Your task to perform on an android device: star an email in the gmail app Image 0: 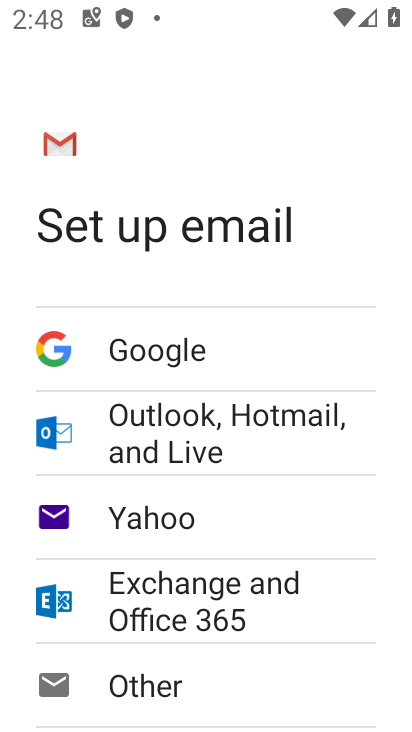
Step 0: press home button
Your task to perform on an android device: star an email in the gmail app Image 1: 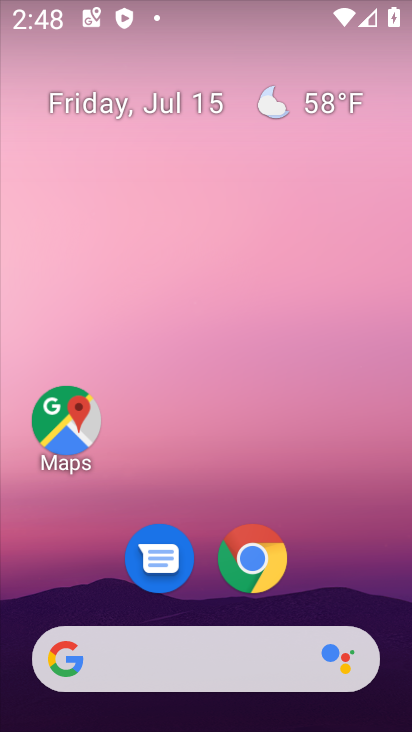
Step 1: drag from (346, 563) to (349, 92)
Your task to perform on an android device: star an email in the gmail app Image 2: 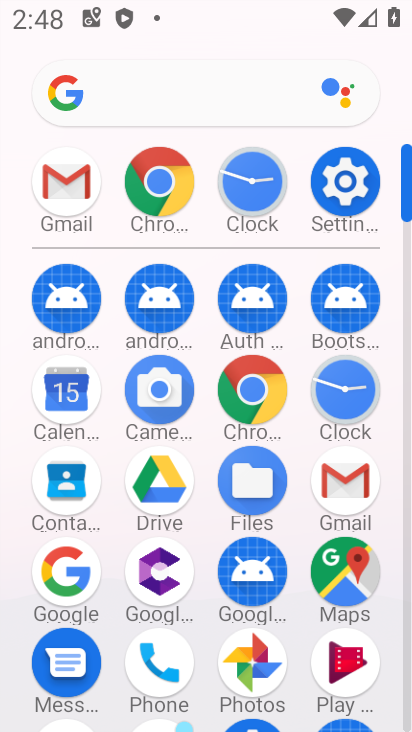
Step 2: click (351, 488)
Your task to perform on an android device: star an email in the gmail app Image 3: 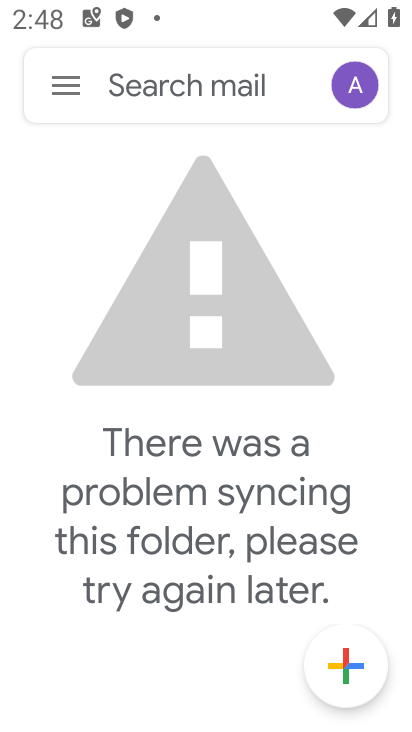
Step 3: click (57, 90)
Your task to perform on an android device: star an email in the gmail app Image 4: 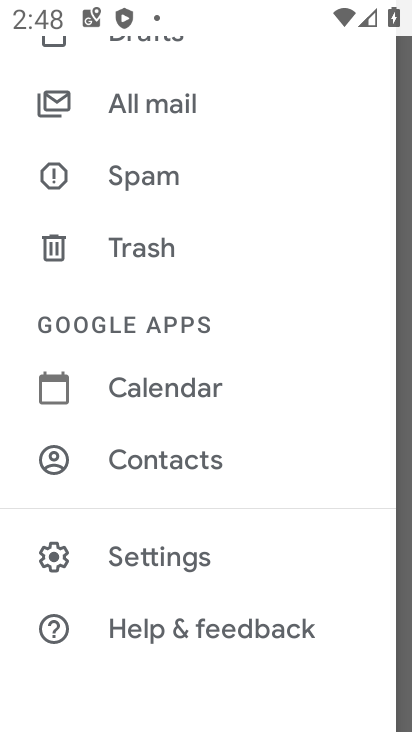
Step 4: click (226, 121)
Your task to perform on an android device: star an email in the gmail app Image 5: 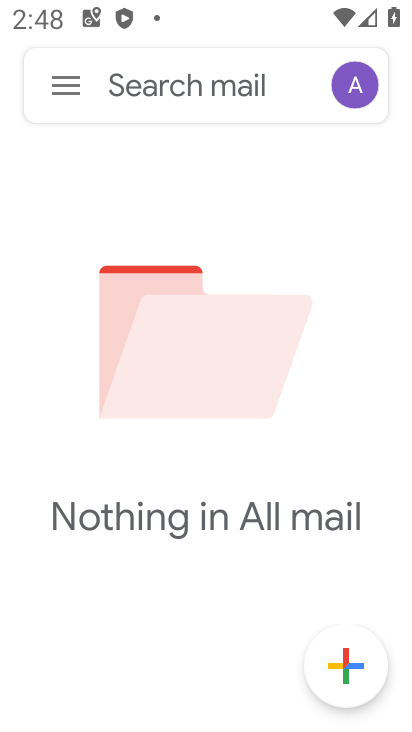
Step 5: task complete